Your task to perform on an android device: move a message to another label in the gmail app Image 0: 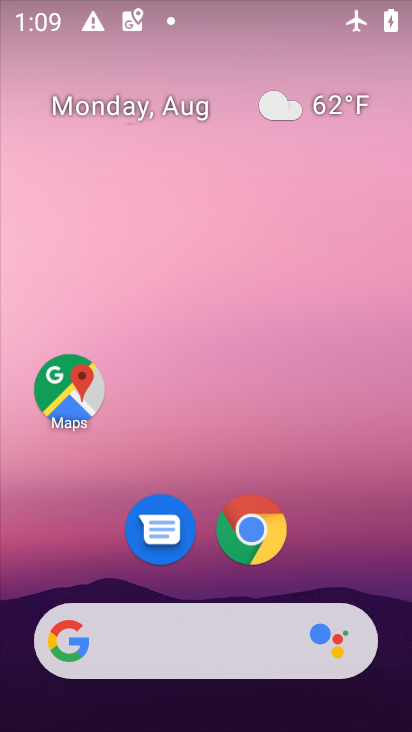
Step 0: drag from (186, 574) to (186, 349)
Your task to perform on an android device: move a message to another label in the gmail app Image 1: 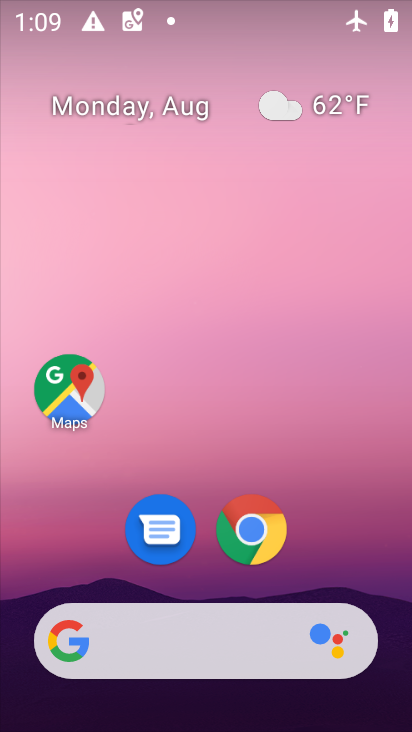
Step 1: drag from (134, 597) to (152, 200)
Your task to perform on an android device: move a message to another label in the gmail app Image 2: 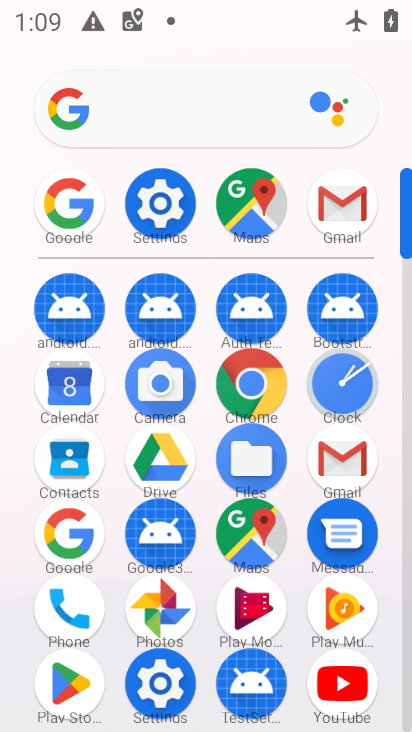
Step 2: click (349, 463)
Your task to perform on an android device: move a message to another label in the gmail app Image 3: 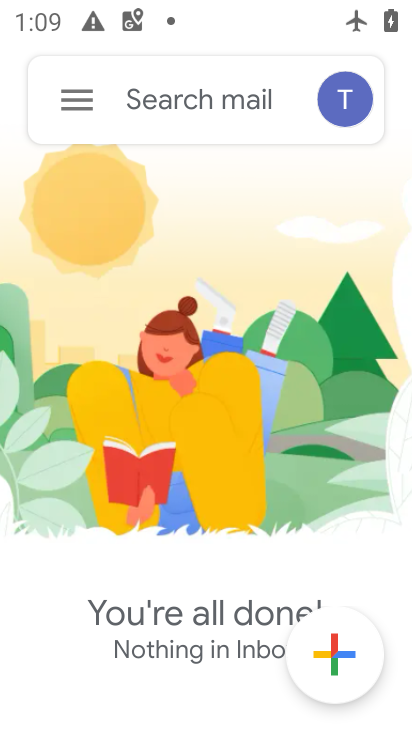
Step 3: task complete